Your task to perform on an android device: Go to sound settings Image 0: 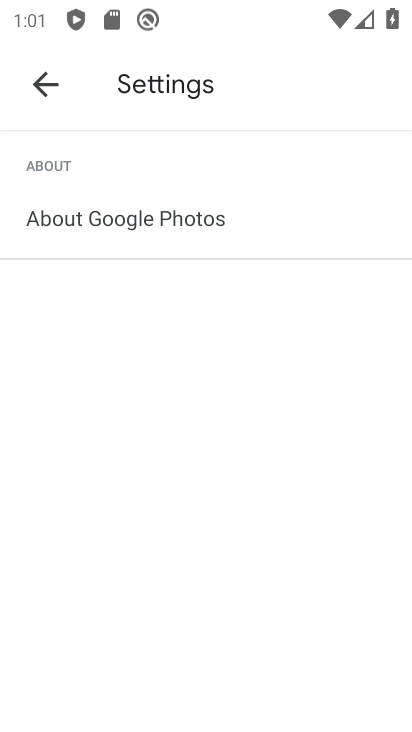
Step 0: press back button
Your task to perform on an android device: Go to sound settings Image 1: 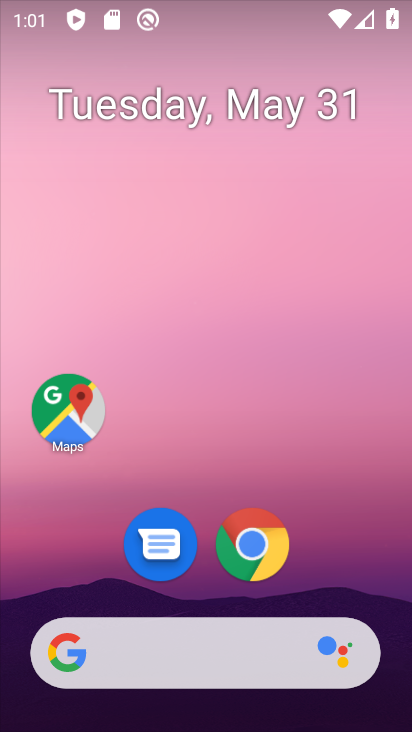
Step 1: drag from (278, 400) to (295, 19)
Your task to perform on an android device: Go to sound settings Image 2: 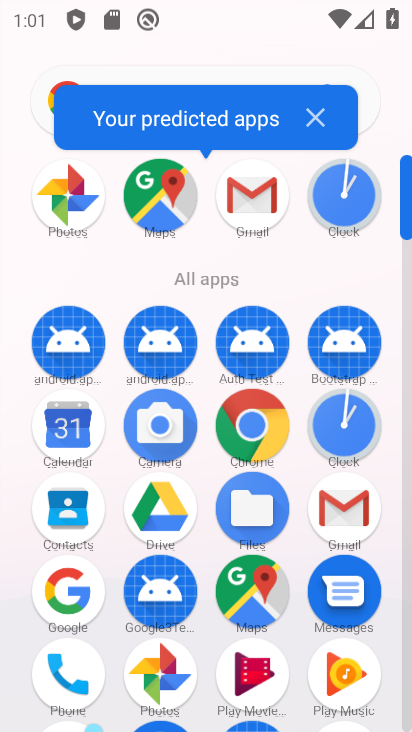
Step 2: drag from (182, 557) to (239, 126)
Your task to perform on an android device: Go to sound settings Image 3: 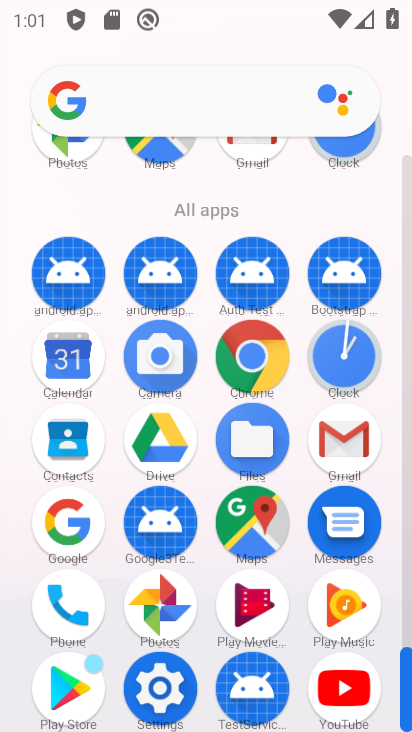
Step 3: click (162, 677)
Your task to perform on an android device: Go to sound settings Image 4: 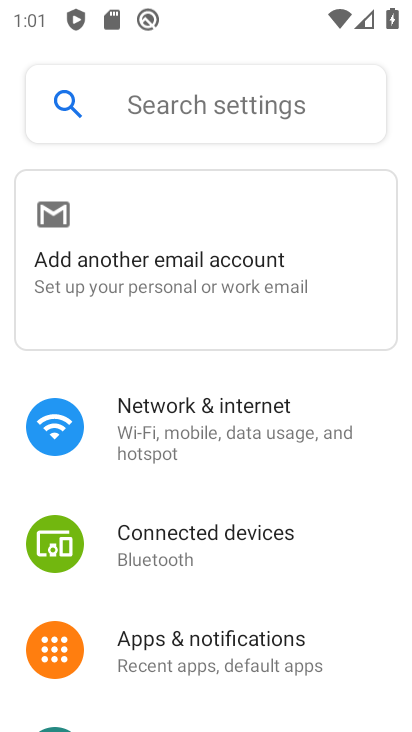
Step 4: drag from (197, 678) to (232, 214)
Your task to perform on an android device: Go to sound settings Image 5: 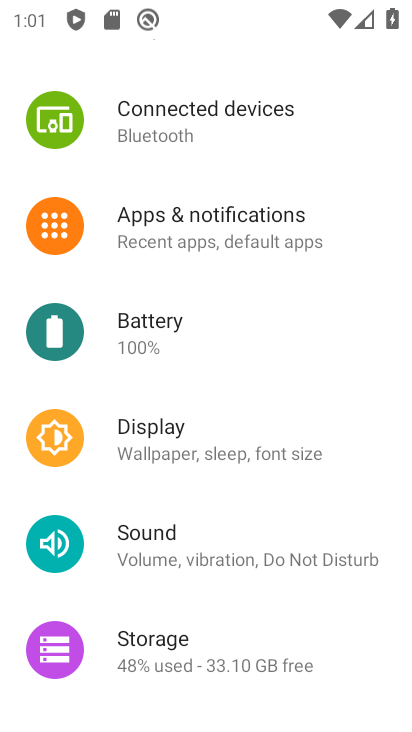
Step 5: click (194, 551)
Your task to perform on an android device: Go to sound settings Image 6: 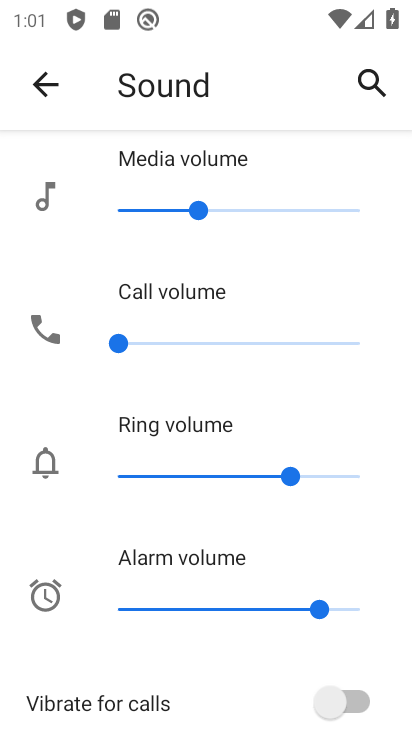
Step 6: task complete